Your task to perform on an android device: Show me the alarms in the clock app Image 0: 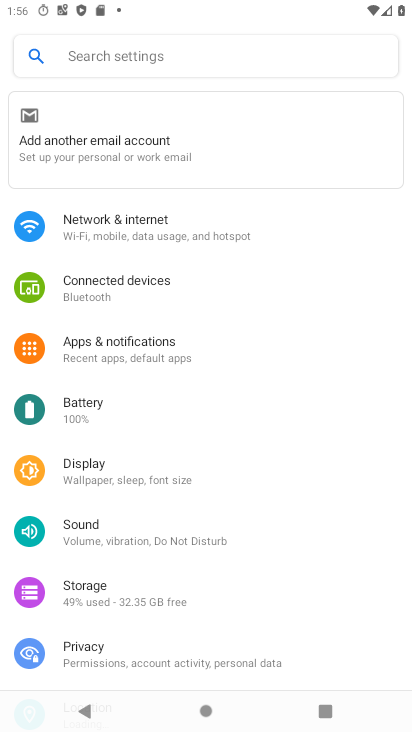
Step 0: drag from (186, 644) to (272, 193)
Your task to perform on an android device: Show me the alarms in the clock app Image 1: 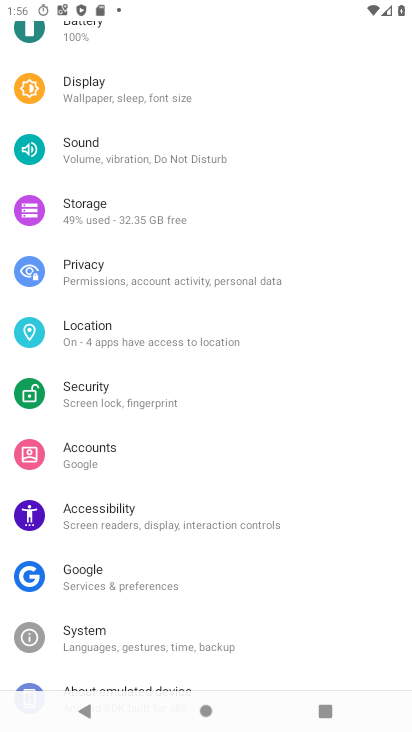
Step 1: press home button
Your task to perform on an android device: Show me the alarms in the clock app Image 2: 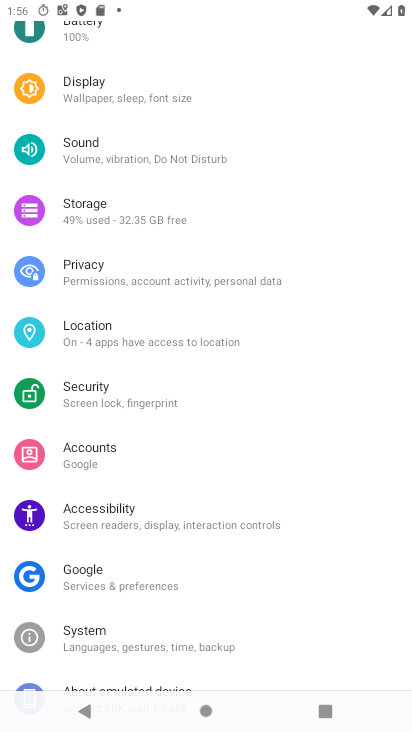
Step 2: drag from (245, 634) to (275, 157)
Your task to perform on an android device: Show me the alarms in the clock app Image 3: 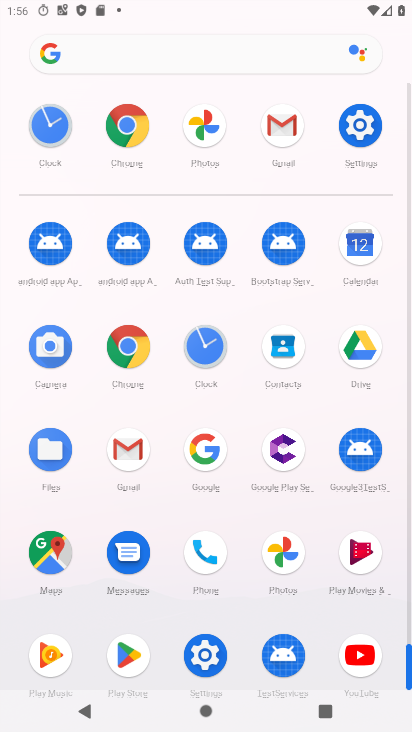
Step 3: click (209, 336)
Your task to perform on an android device: Show me the alarms in the clock app Image 4: 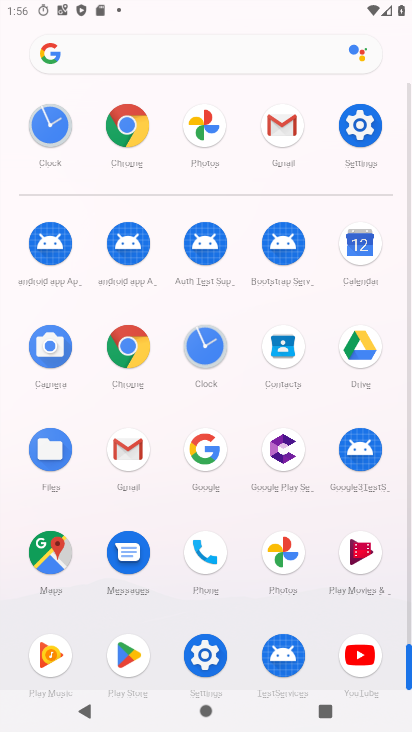
Step 4: click (208, 335)
Your task to perform on an android device: Show me the alarms in the clock app Image 5: 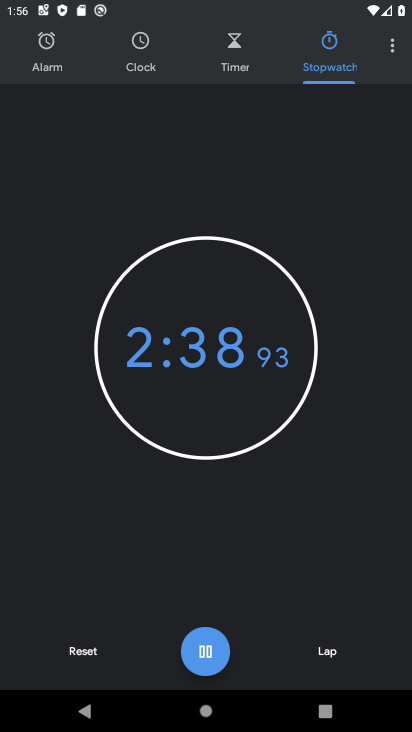
Step 5: click (58, 49)
Your task to perform on an android device: Show me the alarms in the clock app Image 6: 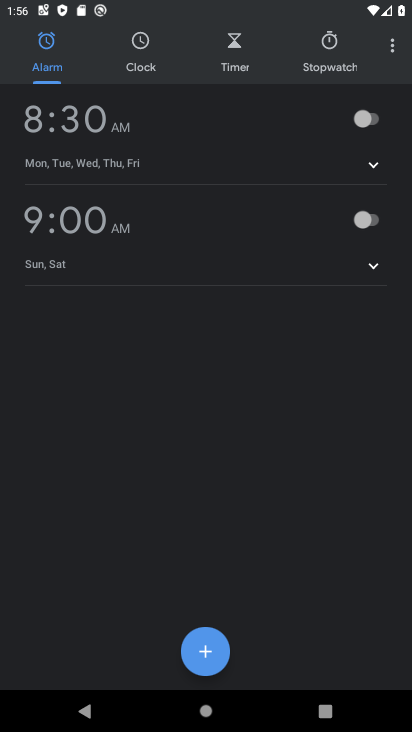
Step 6: click (370, 116)
Your task to perform on an android device: Show me the alarms in the clock app Image 7: 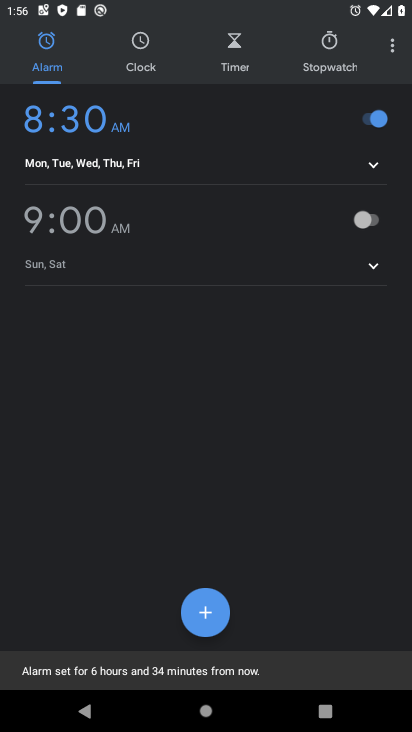
Step 7: task complete